Your task to perform on an android device: open app "Duolingo: language lessons" (install if not already installed), go to login, and select forgot password Image 0: 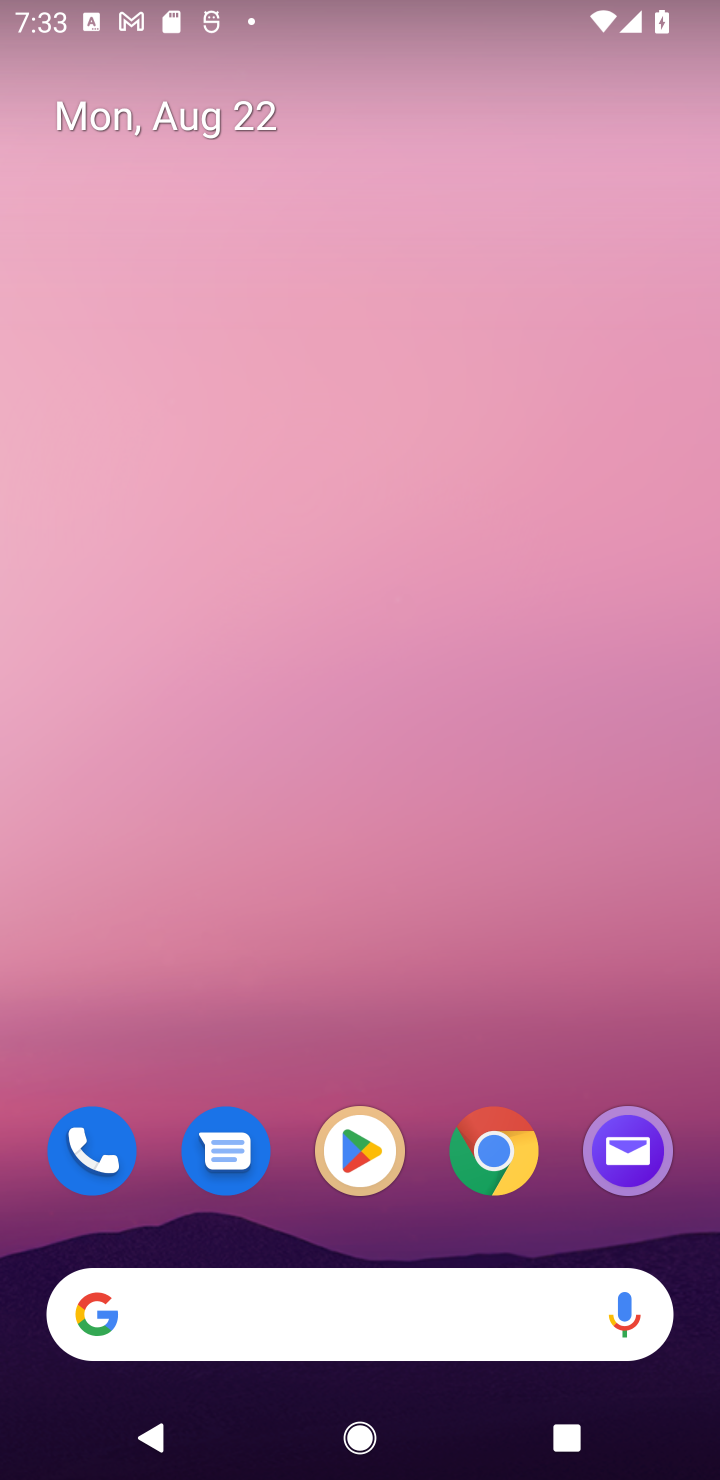
Step 0: press home button
Your task to perform on an android device: open app "Duolingo: language lessons" (install if not already installed), go to login, and select forgot password Image 1: 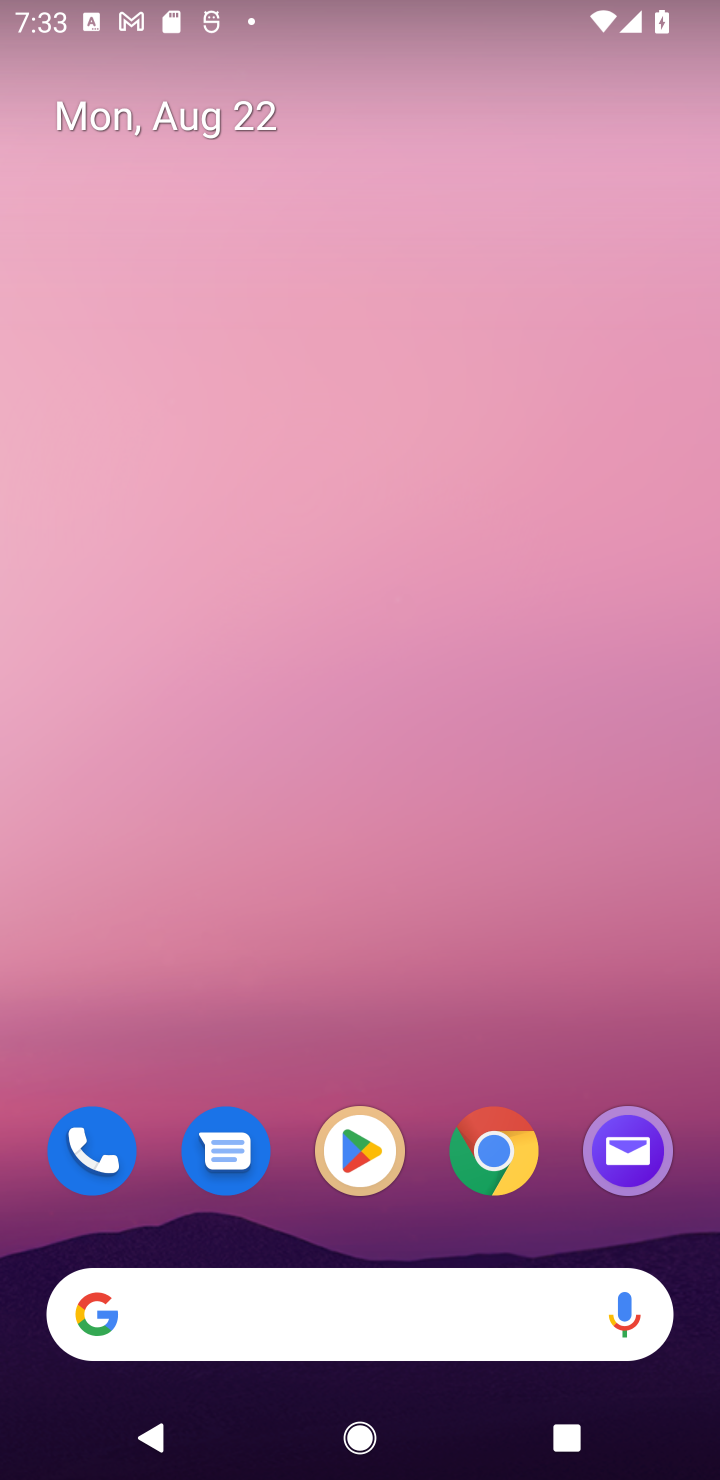
Step 1: click (362, 1148)
Your task to perform on an android device: open app "Duolingo: language lessons" (install if not already installed), go to login, and select forgot password Image 2: 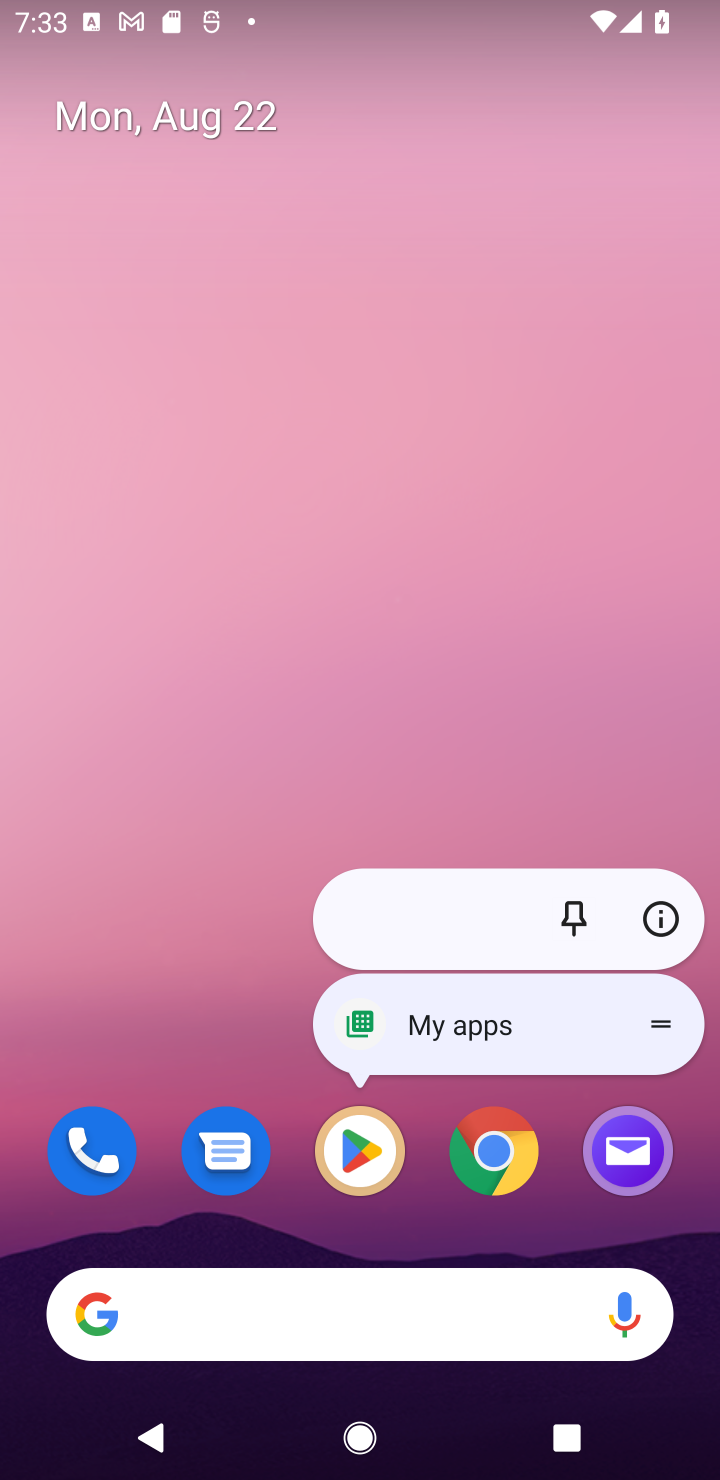
Step 2: click (364, 1150)
Your task to perform on an android device: open app "Duolingo: language lessons" (install if not already installed), go to login, and select forgot password Image 3: 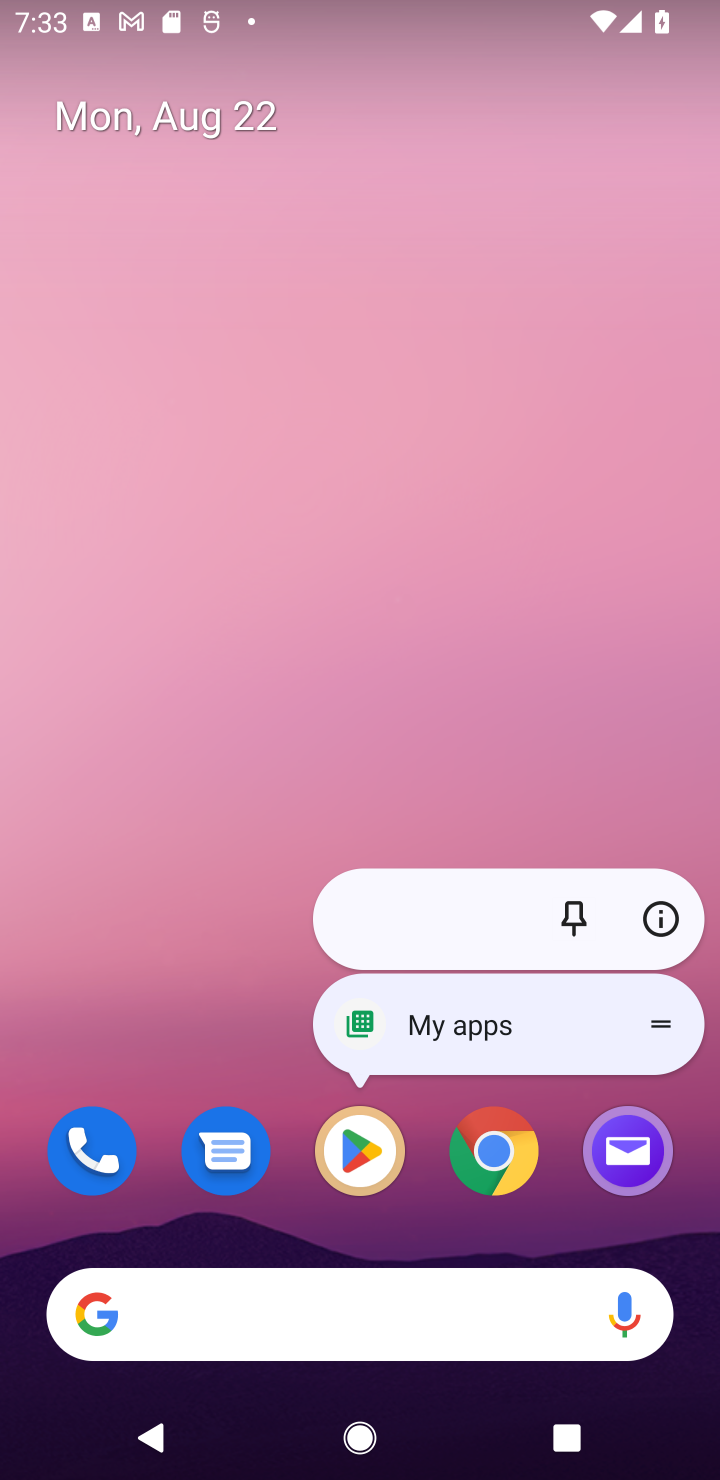
Step 3: click (364, 1150)
Your task to perform on an android device: open app "Duolingo: language lessons" (install if not already installed), go to login, and select forgot password Image 4: 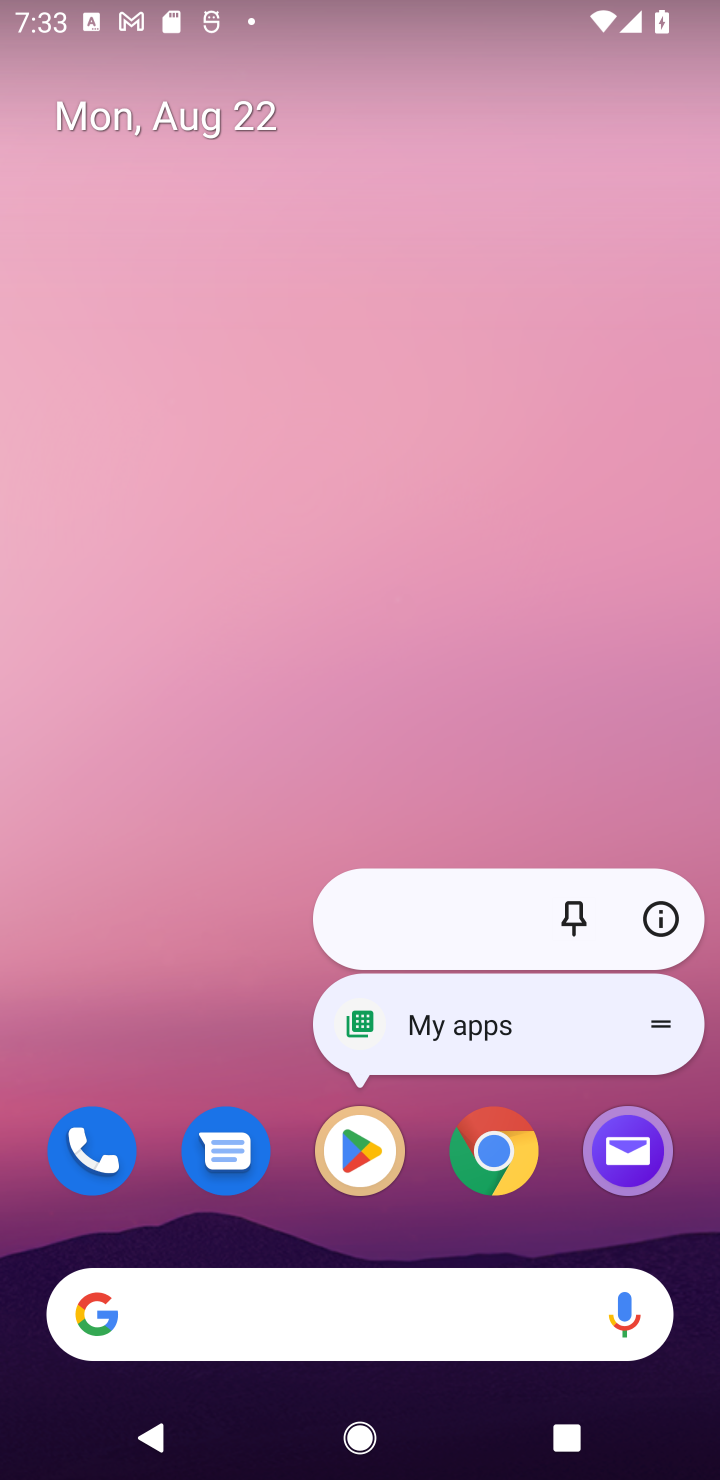
Step 4: click (364, 1145)
Your task to perform on an android device: open app "Duolingo: language lessons" (install if not already installed), go to login, and select forgot password Image 5: 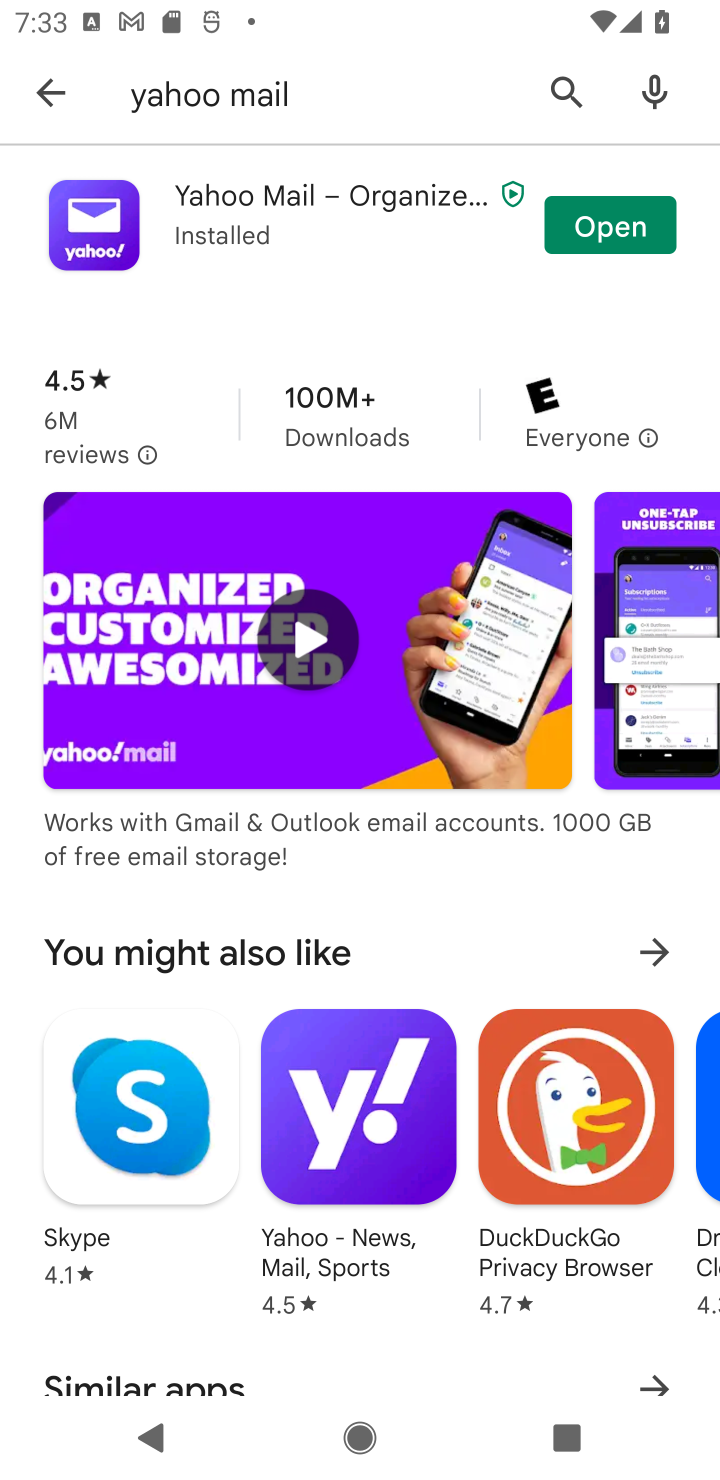
Step 5: click (558, 85)
Your task to perform on an android device: open app "Duolingo: language lessons" (install if not already installed), go to login, and select forgot password Image 6: 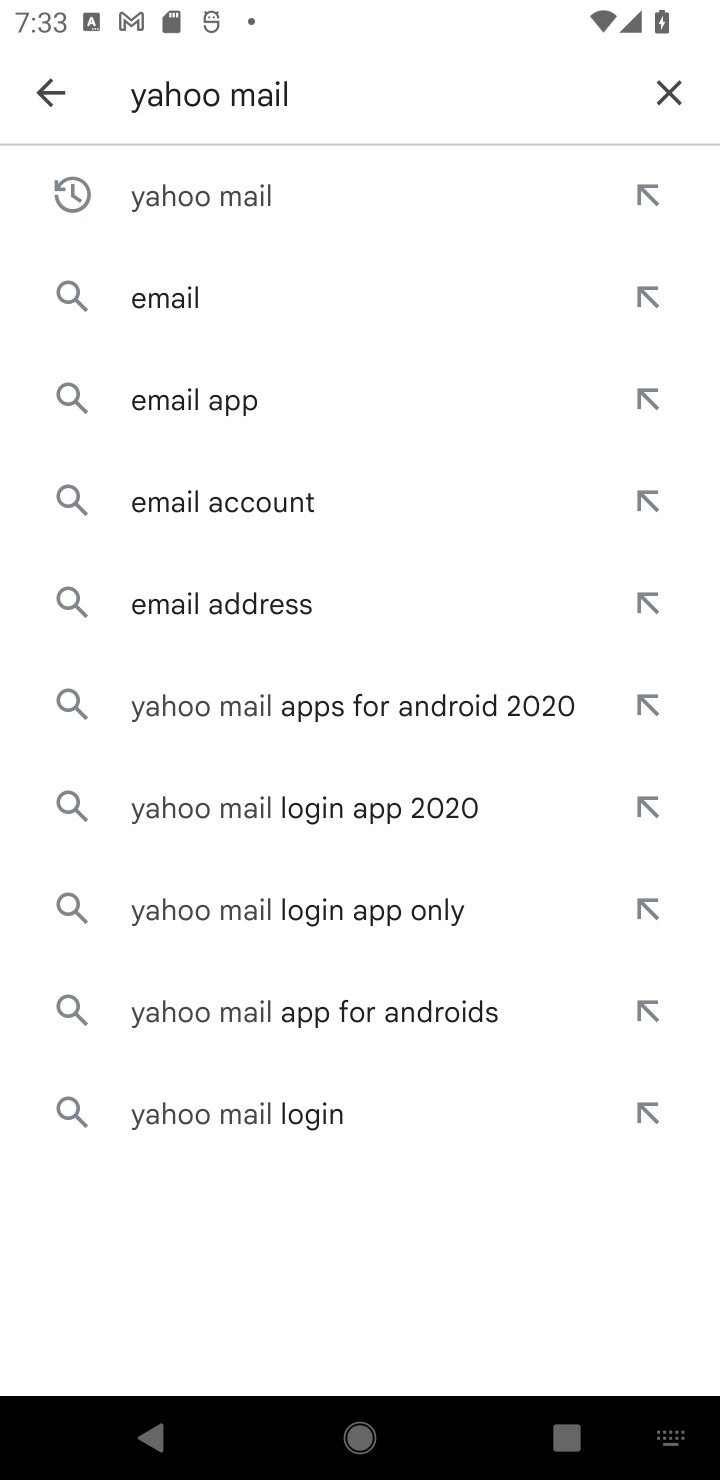
Step 6: click (670, 82)
Your task to perform on an android device: open app "Duolingo: language lessons" (install if not already installed), go to login, and select forgot password Image 7: 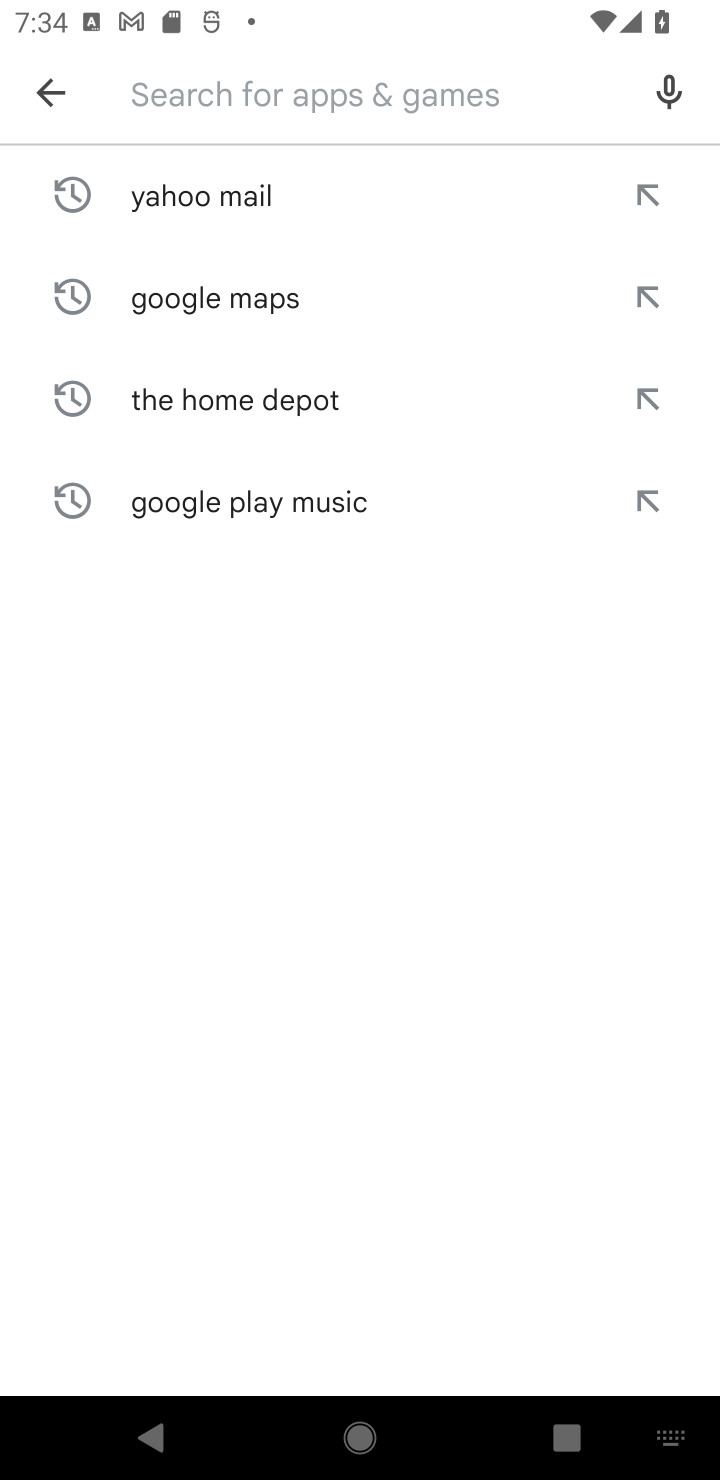
Step 7: type "Duolingo: language lessons"
Your task to perform on an android device: open app "Duolingo: language lessons" (install if not already installed), go to login, and select forgot password Image 8: 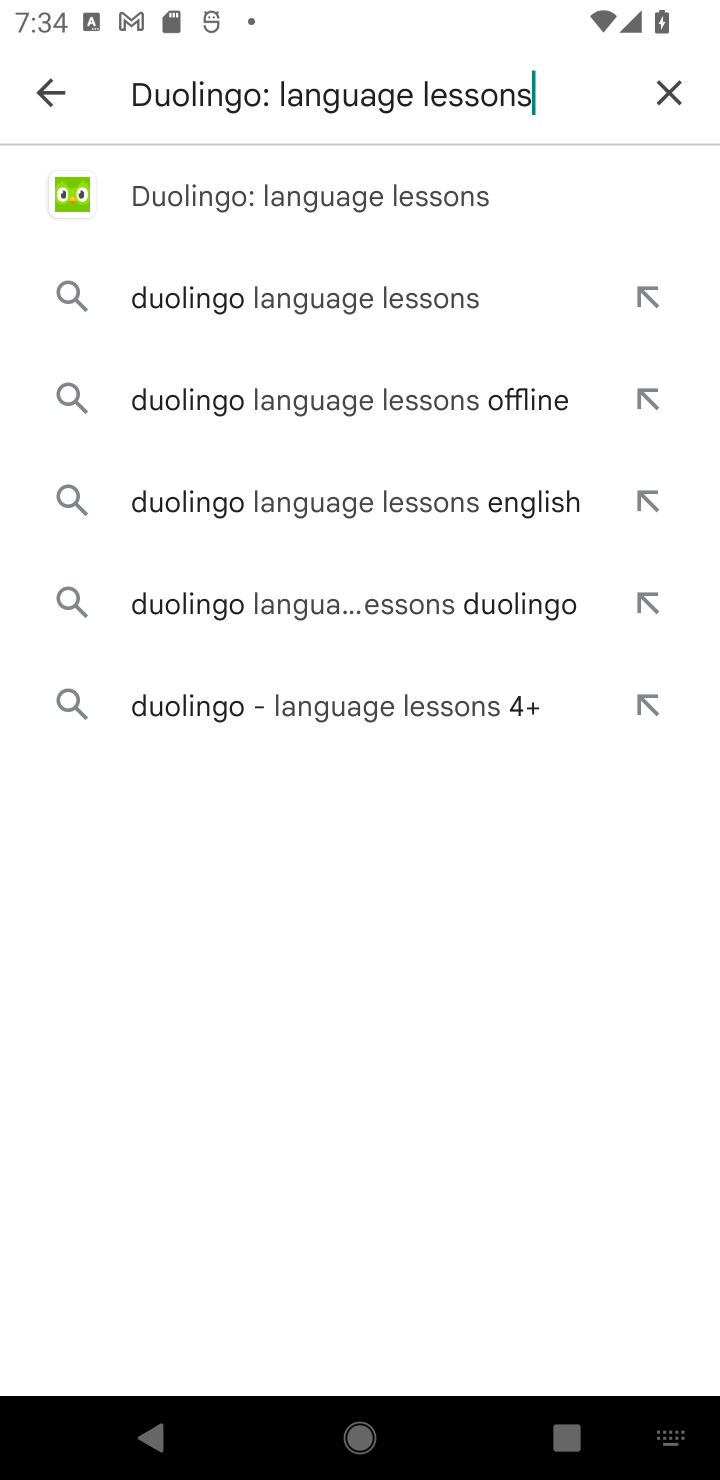
Step 8: click (352, 183)
Your task to perform on an android device: open app "Duolingo: language lessons" (install if not already installed), go to login, and select forgot password Image 9: 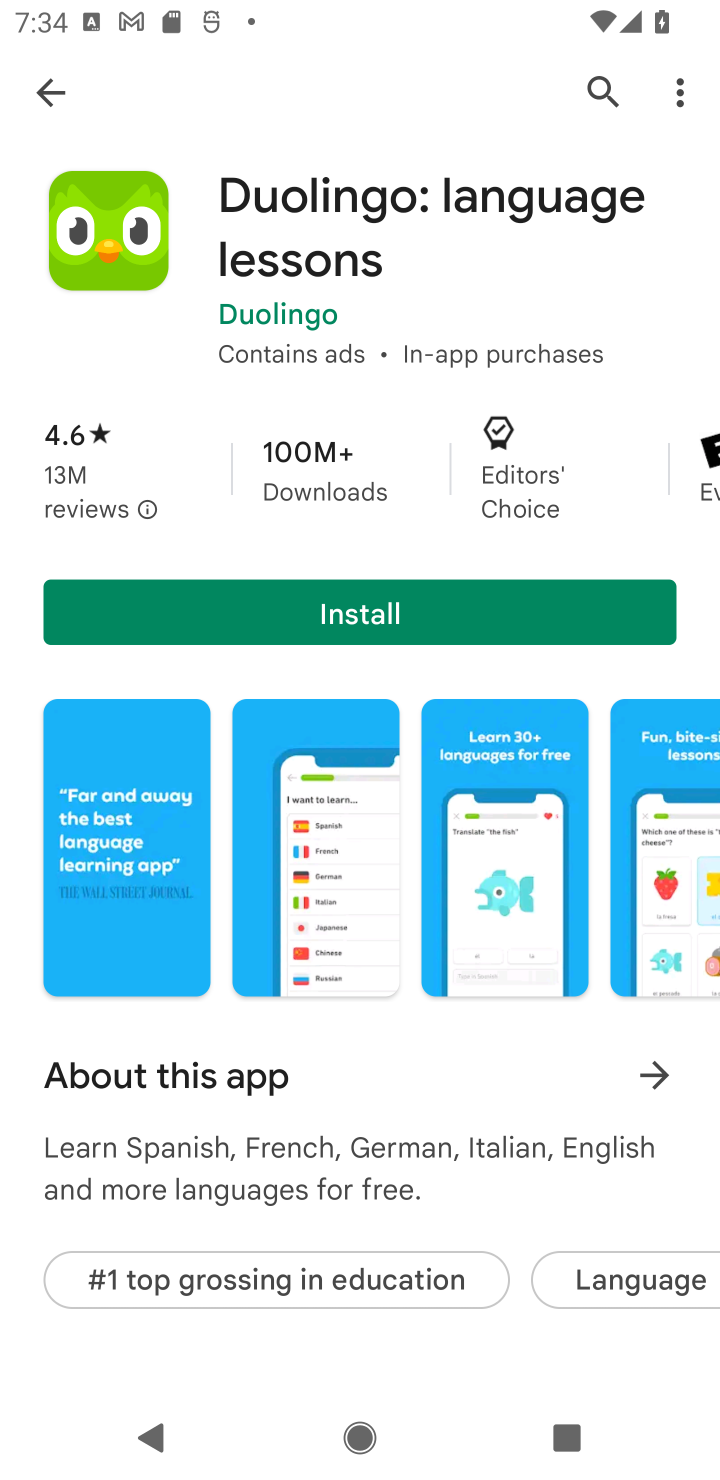
Step 9: click (394, 620)
Your task to perform on an android device: open app "Duolingo: language lessons" (install if not already installed), go to login, and select forgot password Image 10: 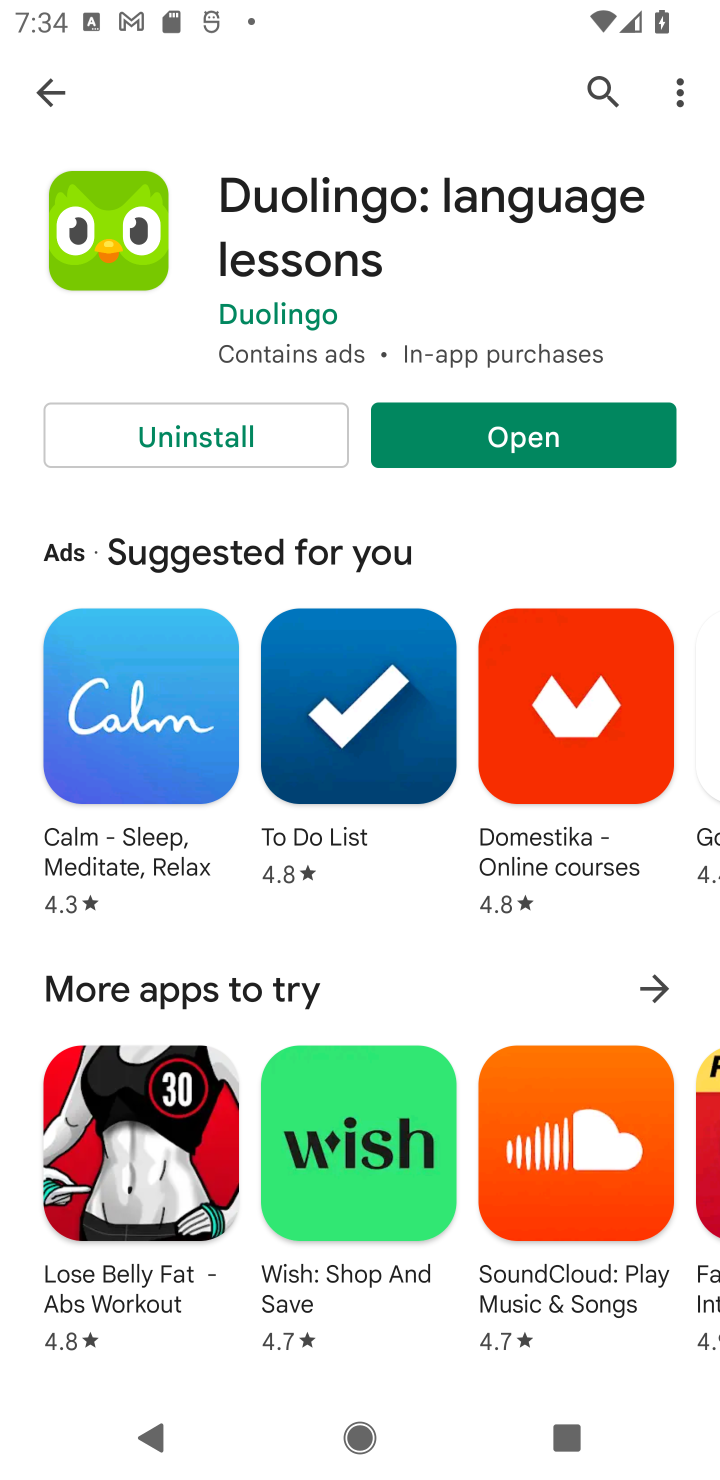
Step 10: click (567, 437)
Your task to perform on an android device: open app "Duolingo: language lessons" (install if not already installed), go to login, and select forgot password Image 11: 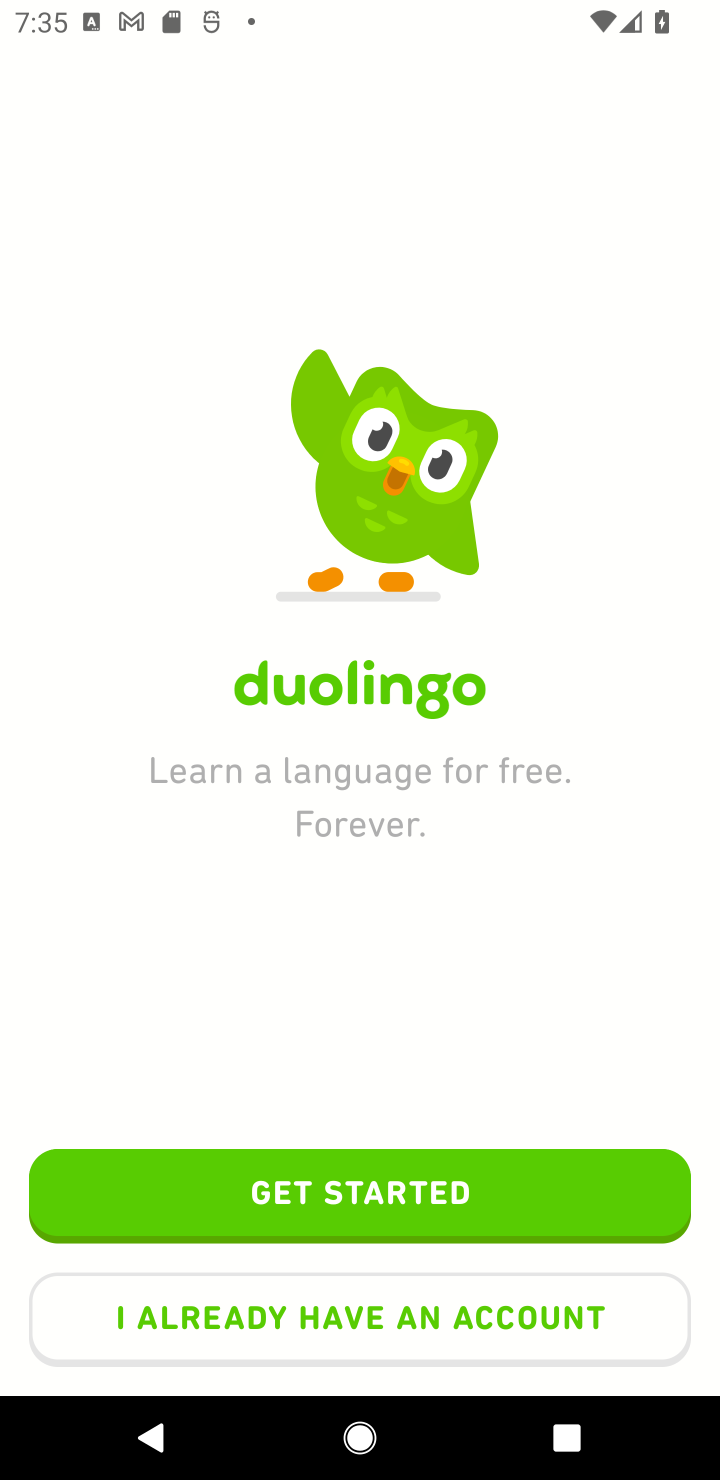
Step 11: click (362, 1185)
Your task to perform on an android device: open app "Duolingo: language lessons" (install if not already installed), go to login, and select forgot password Image 12: 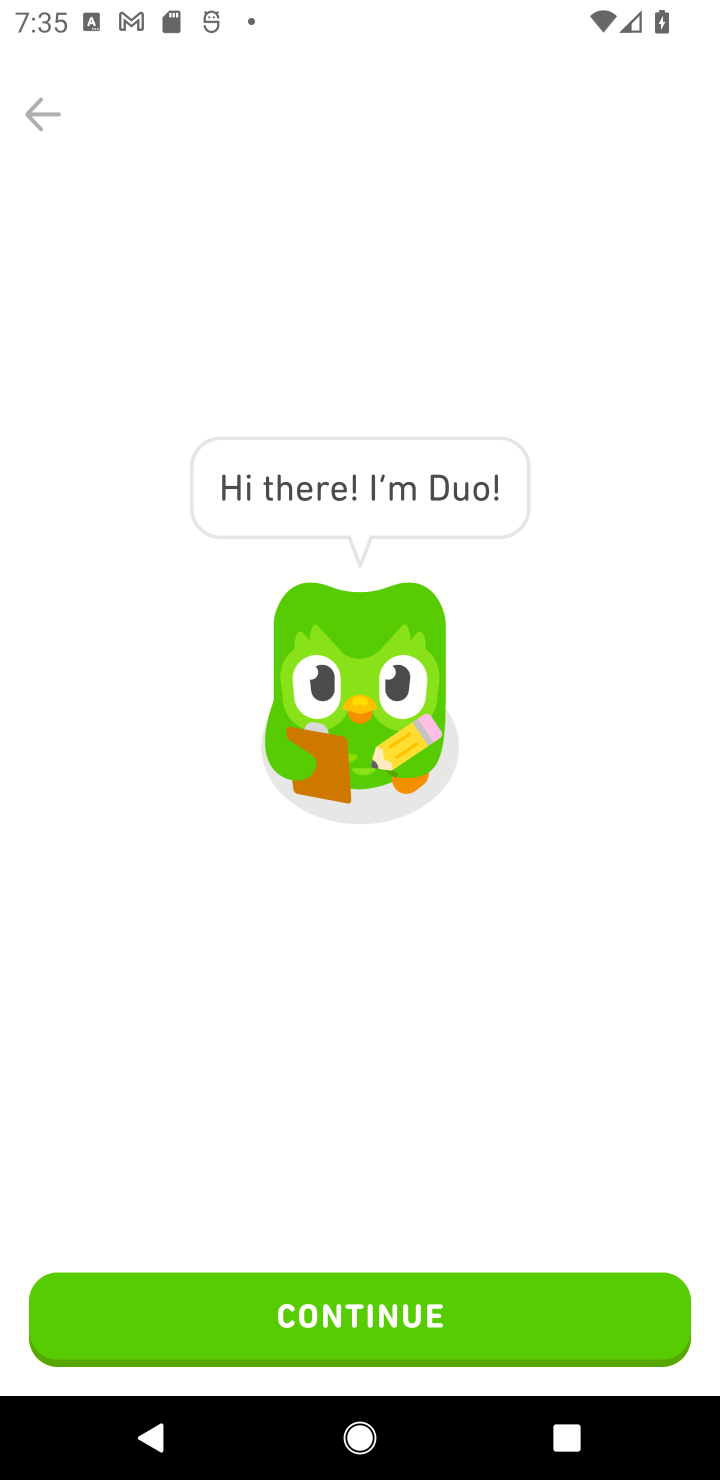
Step 12: task complete